Your task to perform on an android device: turn on wifi Image 0: 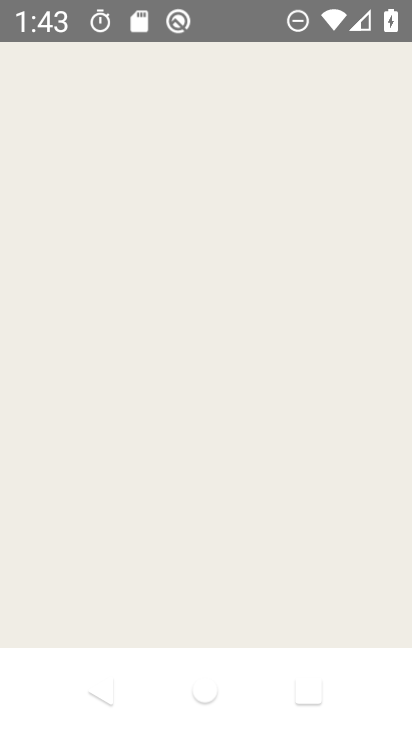
Step 0: press home button
Your task to perform on an android device: turn on wifi Image 1: 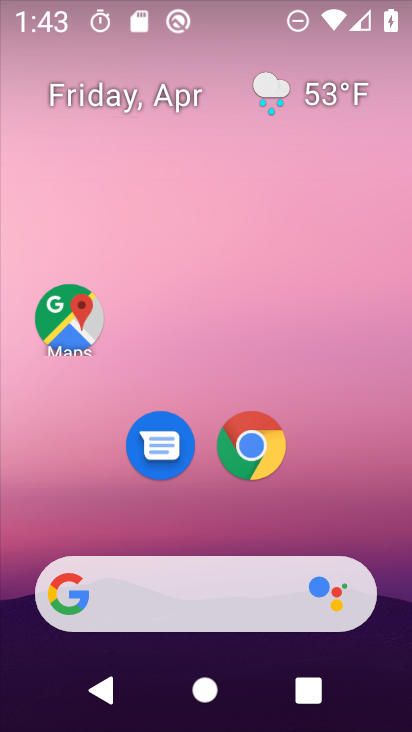
Step 1: drag from (376, 507) to (365, 68)
Your task to perform on an android device: turn on wifi Image 2: 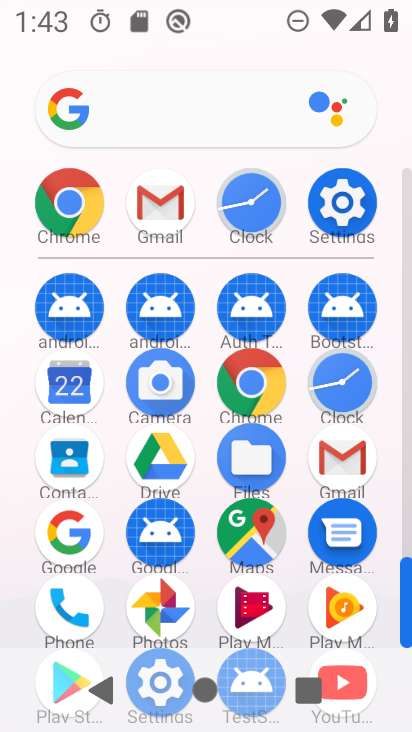
Step 2: click (362, 203)
Your task to perform on an android device: turn on wifi Image 3: 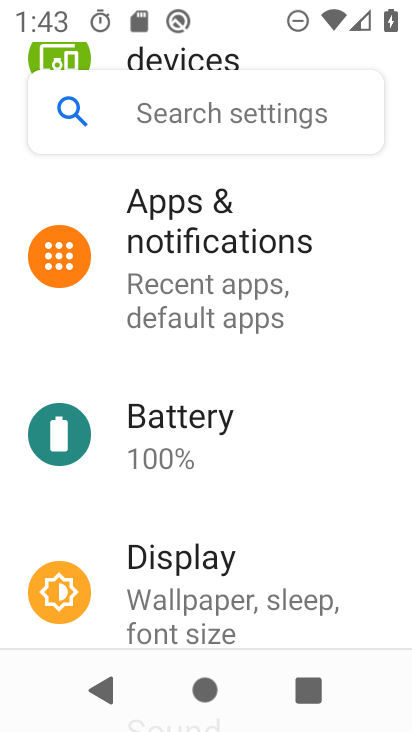
Step 3: drag from (361, 376) to (368, 486)
Your task to perform on an android device: turn on wifi Image 4: 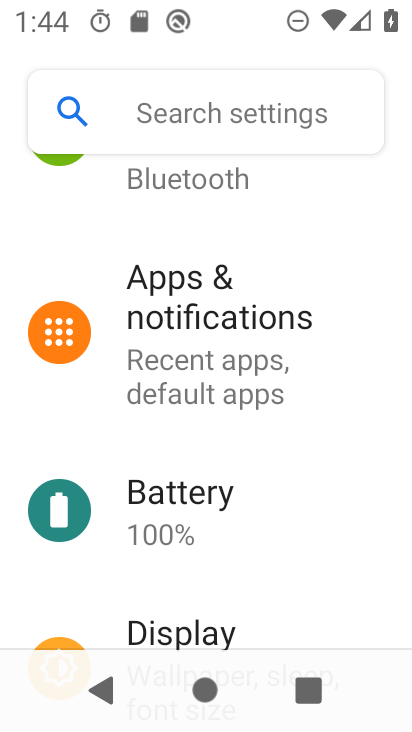
Step 4: drag from (365, 350) to (370, 473)
Your task to perform on an android device: turn on wifi Image 5: 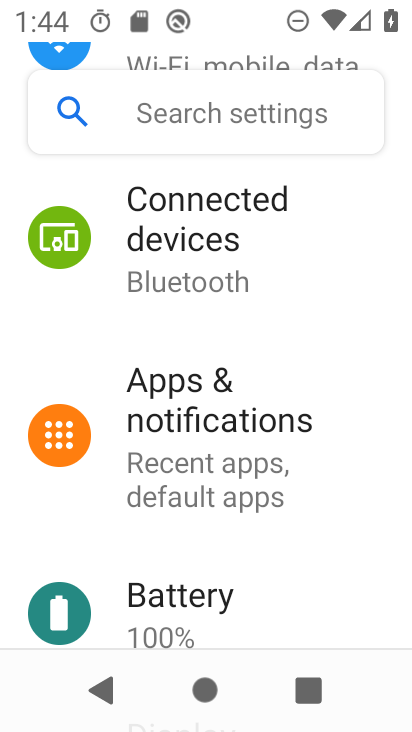
Step 5: drag from (359, 320) to (354, 462)
Your task to perform on an android device: turn on wifi Image 6: 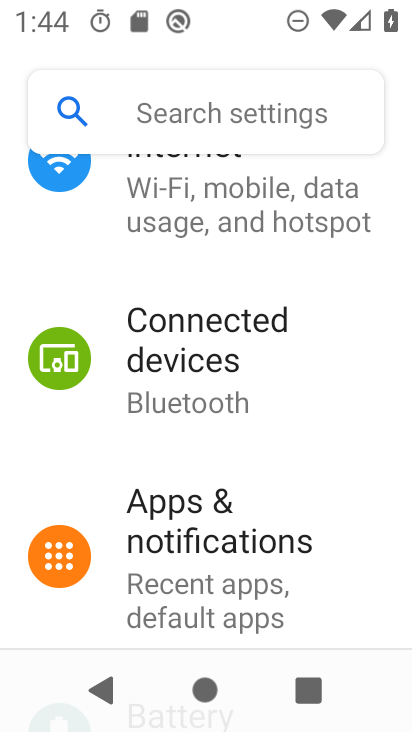
Step 6: drag from (349, 317) to (349, 452)
Your task to perform on an android device: turn on wifi Image 7: 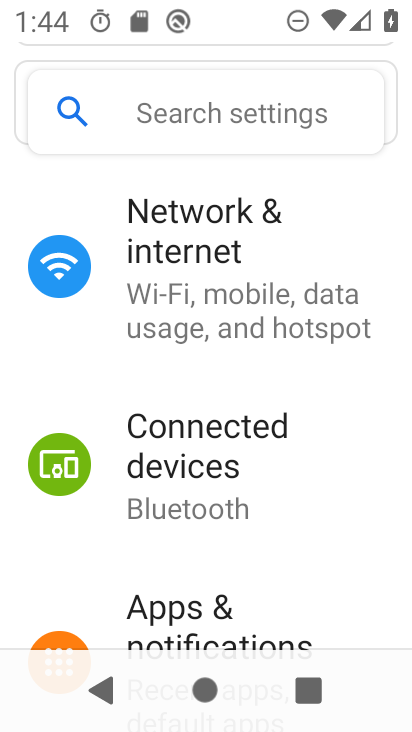
Step 7: drag from (390, 272) to (389, 434)
Your task to perform on an android device: turn on wifi Image 8: 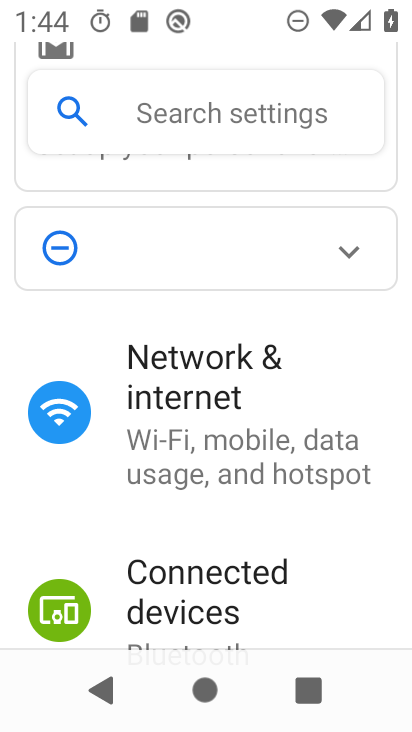
Step 8: click (284, 412)
Your task to perform on an android device: turn on wifi Image 9: 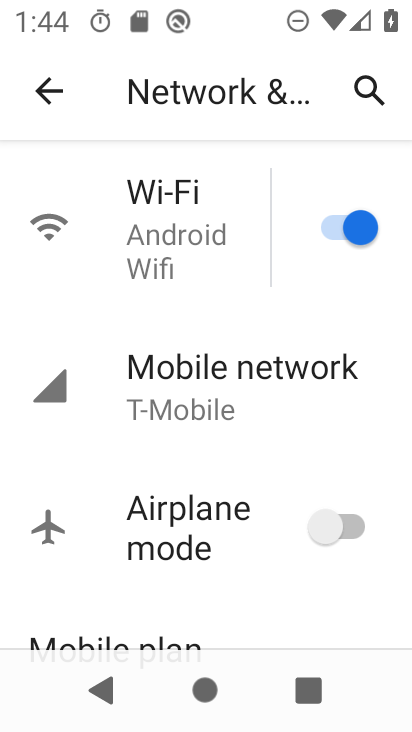
Step 9: task complete